Your task to perform on an android device: Go to Yahoo.com Image 0: 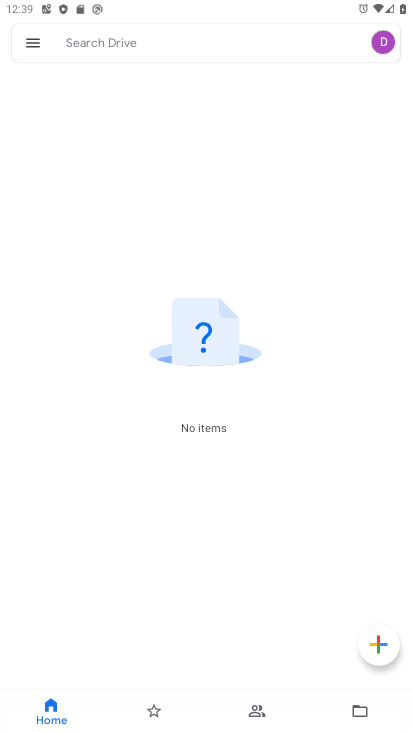
Step 0: press home button
Your task to perform on an android device: Go to Yahoo.com Image 1: 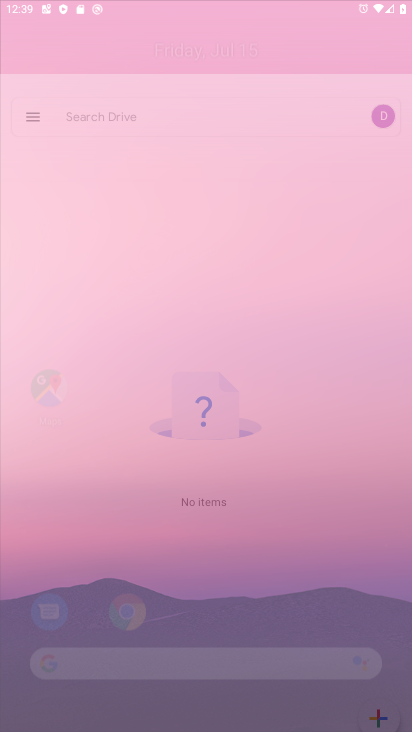
Step 1: drag from (349, 591) to (234, 8)
Your task to perform on an android device: Go to Yahoo.com Image 2: 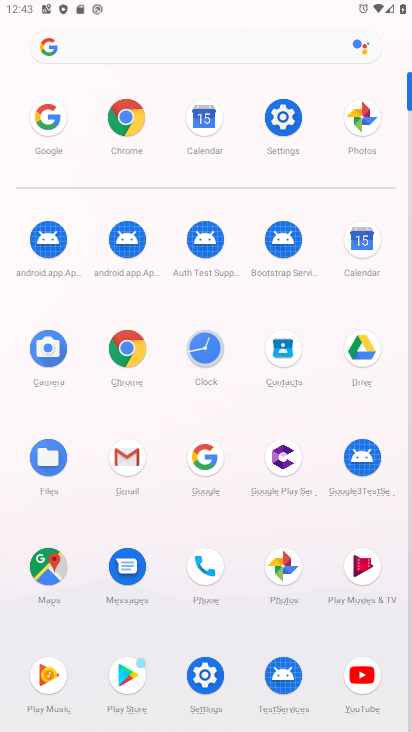
Step 2: click (200, 468)
Your task to perform on an android device: Go to Yahoo.com Image 3: 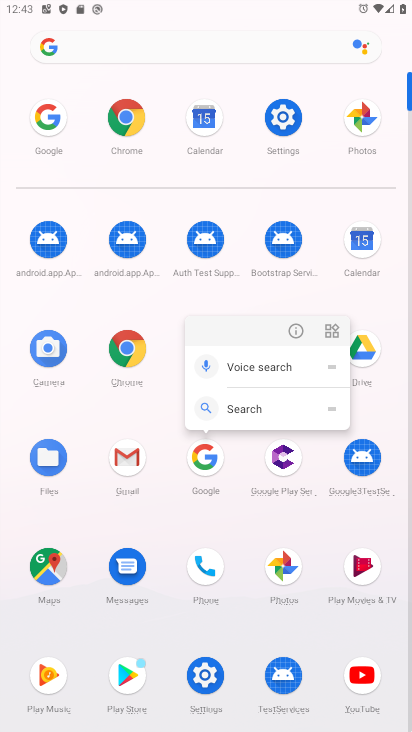
Step 3: click (201, 468)
Your task to perform on an android device: Go to Yahoo.com Image 4: 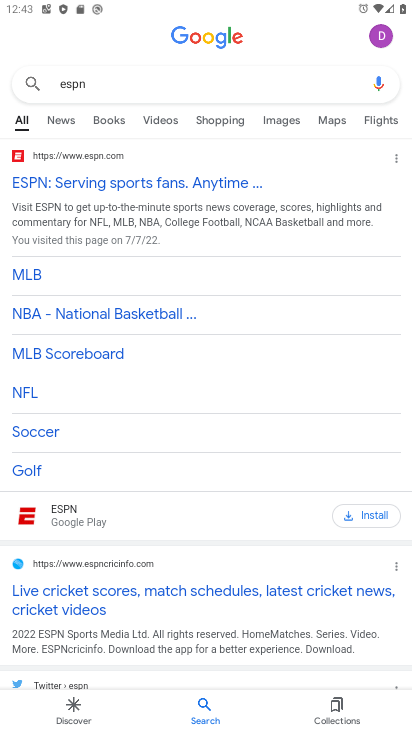
Step 4: press back button
Your task to perform on an android device: Go to Yahoo.com Image 5: 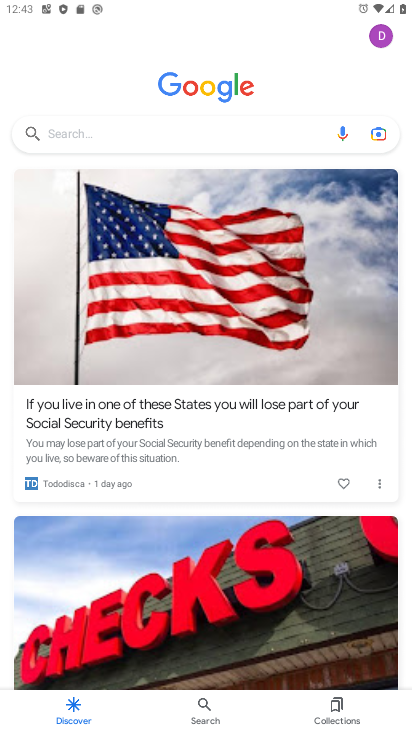
Step 5: click (162, 137)
Your task to perform on an android device: Go to Yahoo.com Image 6: 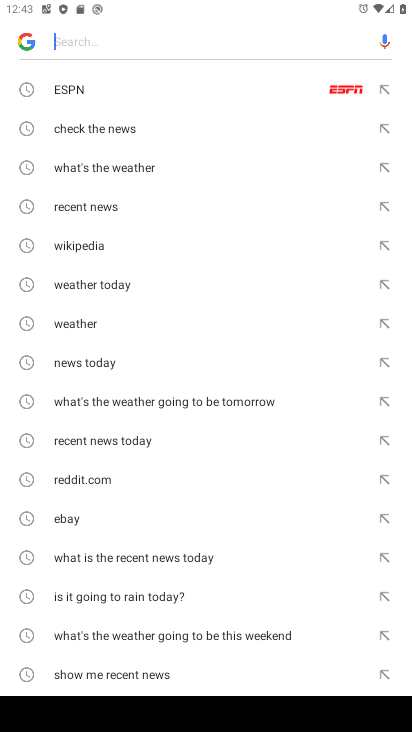
Step 6: type "Yahoo.com"
Your task to perform on an android device: Go to Yahoo.com Image 7: 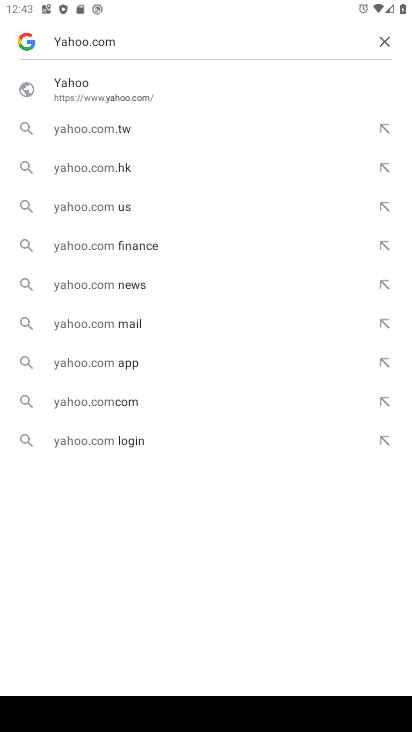
Step 7: click (126, 94)
Your task to perform on an android device: Go to Yahoo.com Image 8: 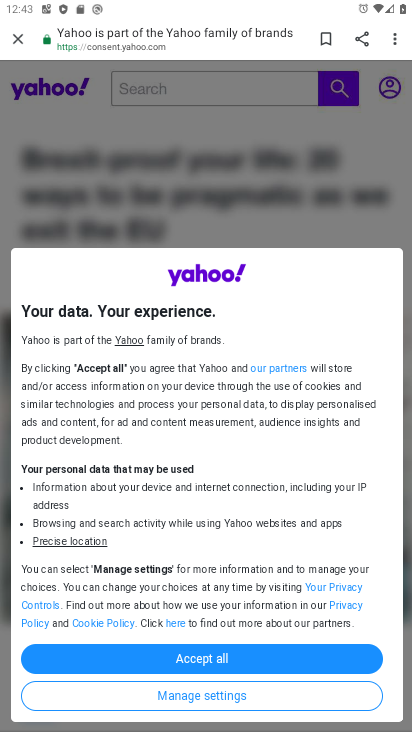
Step 8: task complete